Your task to perform on an android device: toggle sleep mode Image 0: 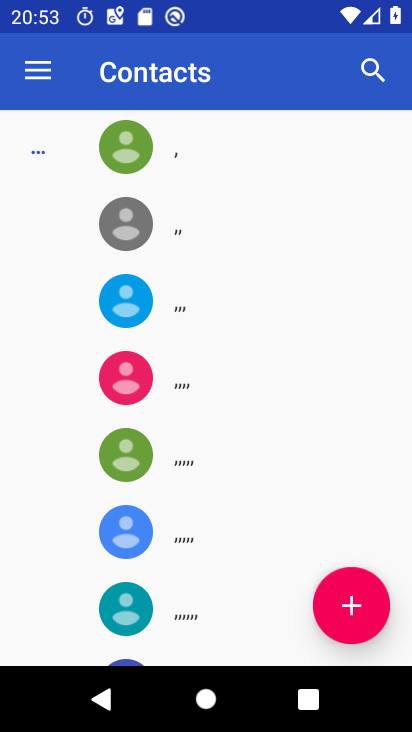
Step 0: press home button
Your task to perform on an android device: toggle sleep mode Image 1: 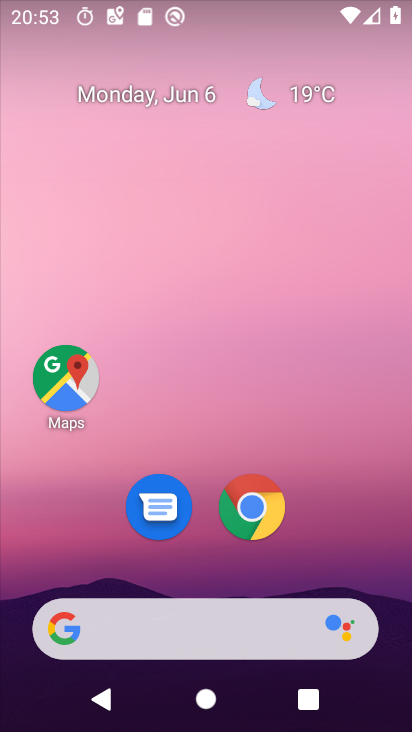
Step 1: drag from (399, 585) to (365, 3)
Your task to perform on an android device: toggle sleep mode Image 2: 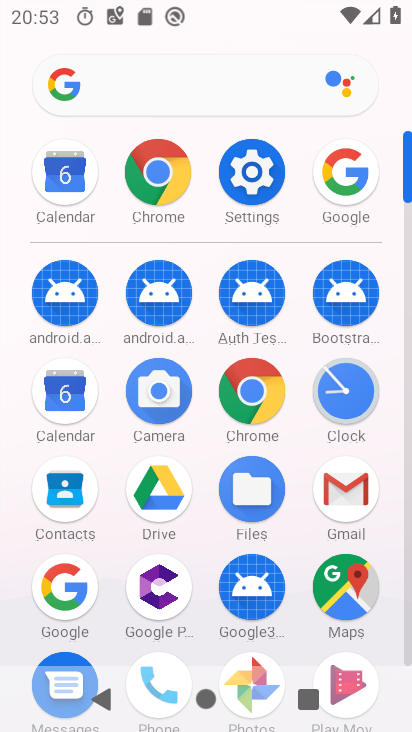
Step 2: click (285, 154)
Your task to perform on an android device: toggle sleep mode Image 3: 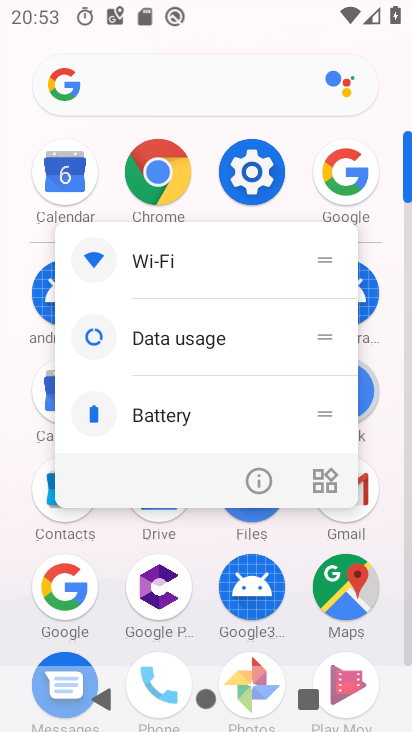
Step 3: click (285, 154)
Your task to perform on an android device: toggle sleep mode Image 4: 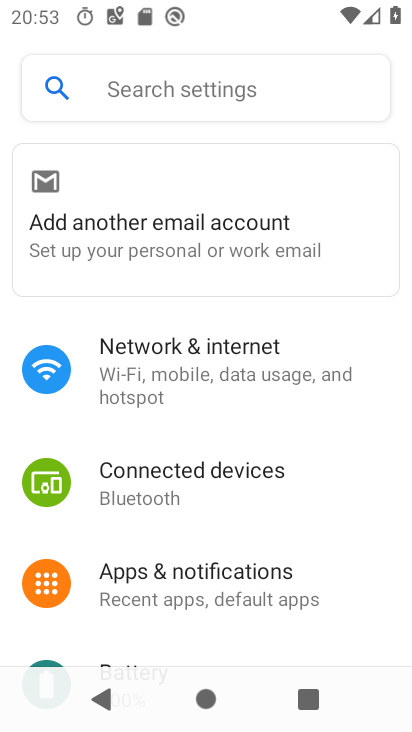
Step 4: drag from (221, 615) to (245, 373)
Your task to perform on an android device: toggle sleep mode Image 5: 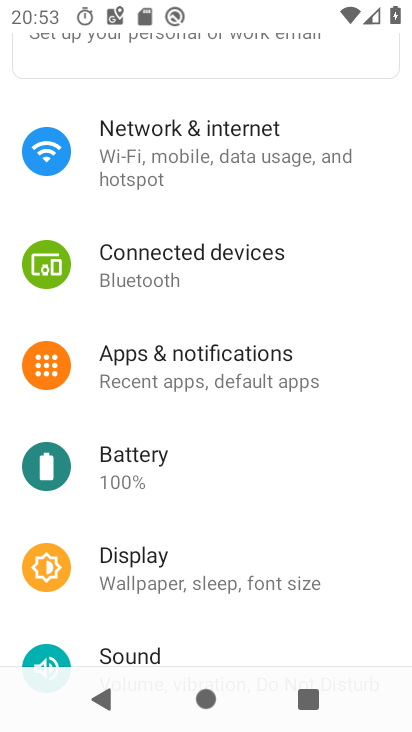
Step 5: click (192, 591)
Your task to perform on an android device: toggle sleep mode Image 6: 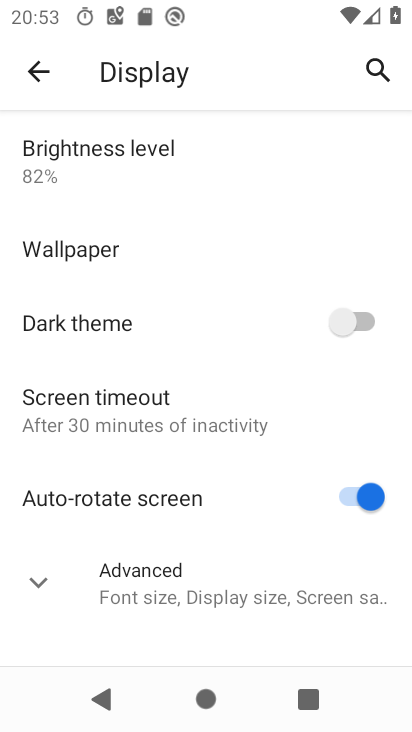
Step 6: task complete